Your task to perform on an android device: Play the last video I watched on Youtube Image 0: 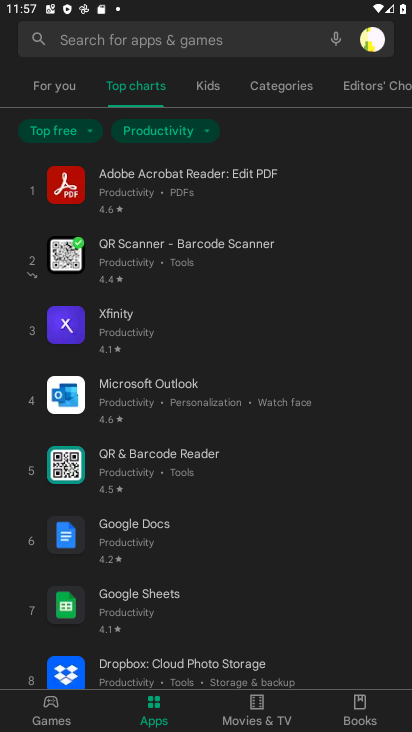
Step 0: click (350, 707)
Your task to perform on an android device: Play the last video I watched on Youtube Image 1: 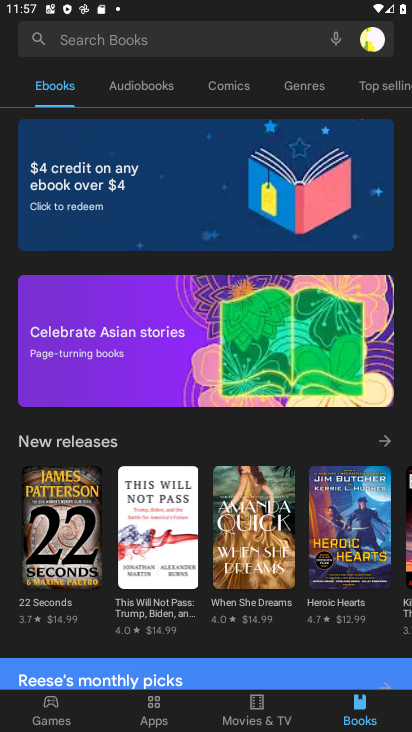
Step 1: press home button
Your task to perform on an android device: Play the last video I watched on Youtube Image 2: 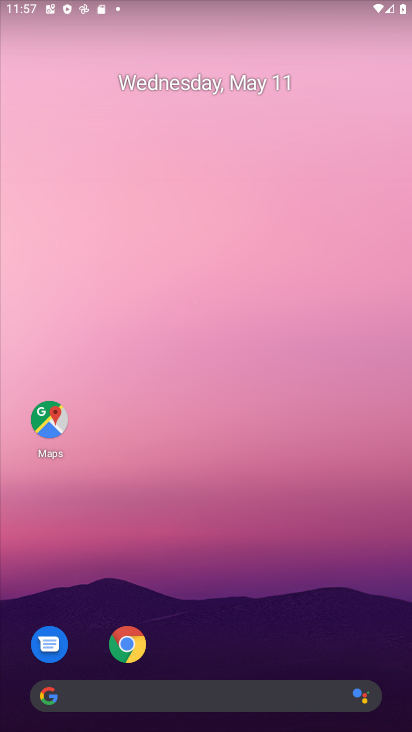
Step 2: drag from (221, 647) to (265, 110)
Your task to perform on an android device: Play the last video I watched on Youtube Image 3: 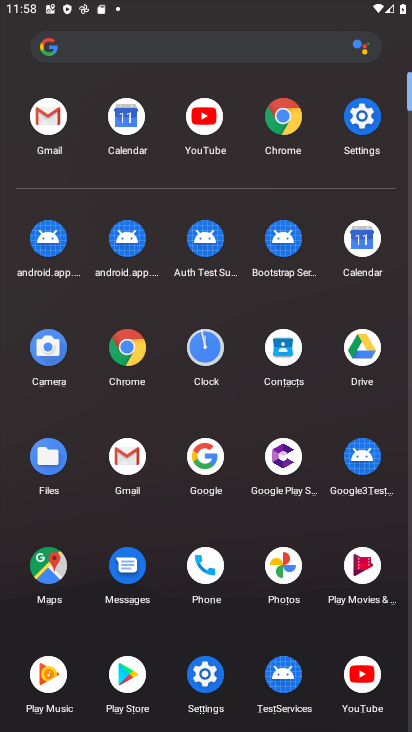
Step 3: click (358, 664)
Your task to perform on an android device: Play the last video I watched on Youtube Image 4: 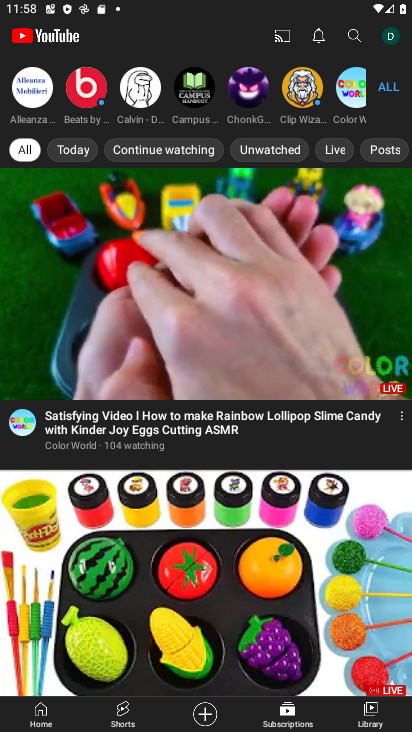
Step 4: click (380, 710)
Your task to perform on an android device: Play the last video I watched on Youtube Image 5: 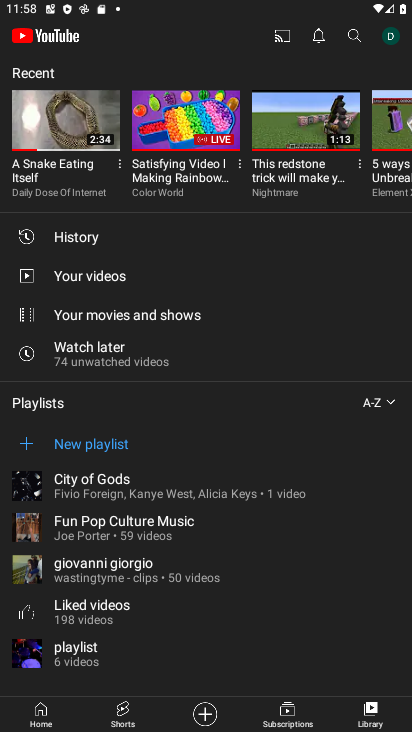
Step 5: click (96, 136)
Your task to perform on an android device: Play the last video I watched on Youtube Image 6: 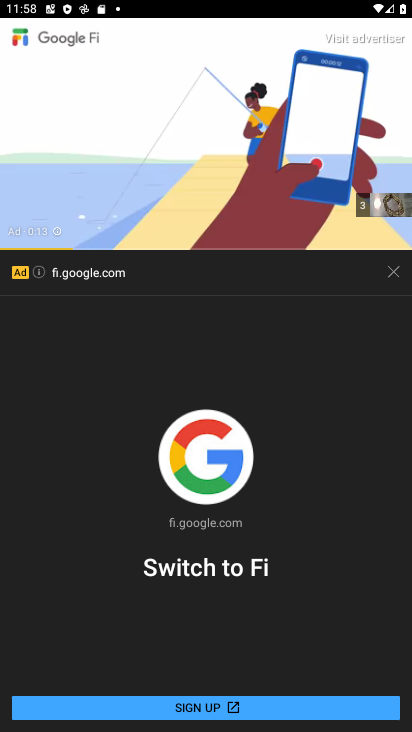
Step 6: task complete